Your task to perform on an android device: Open Google Image 0: 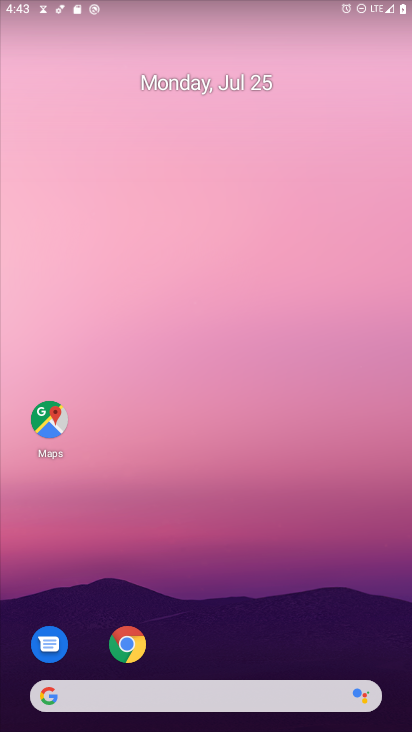
Step 0: press home button
Your task to perform on an android device: Open Google Image 1: 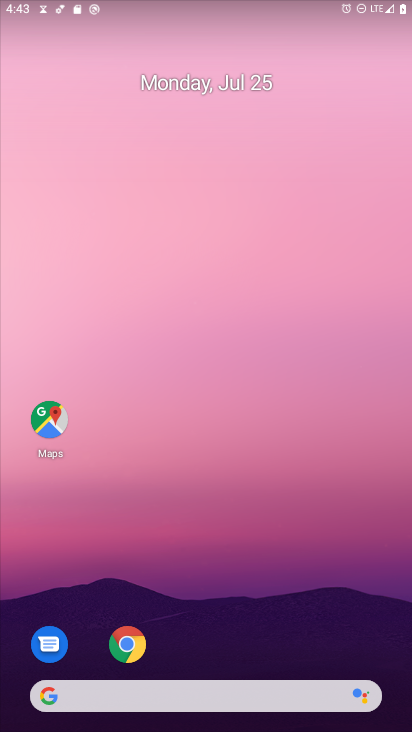
Step 1: drag from (297, 616) to (244, 109)
Your task to perform on an android device: Open Google Image 2: 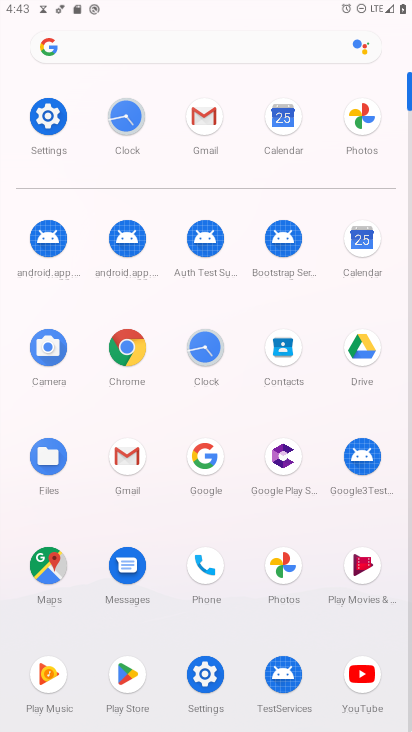
Step 2: click (209, 450)
Your task to perform on an android device: Open Google Image 3: 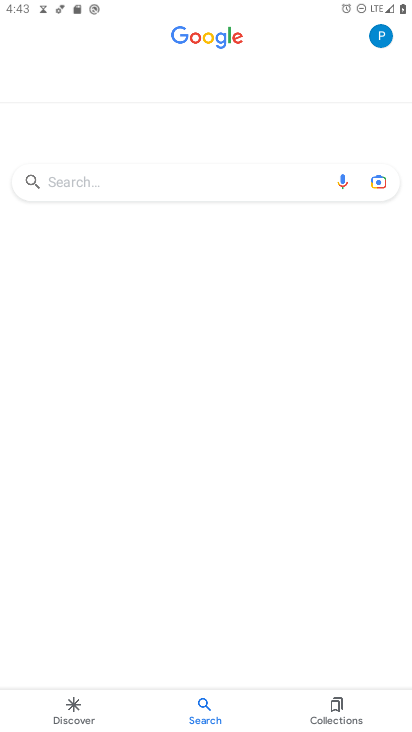
Step 3: click (186, 34)
Your task to perform on an android device: Open Google Image 4: 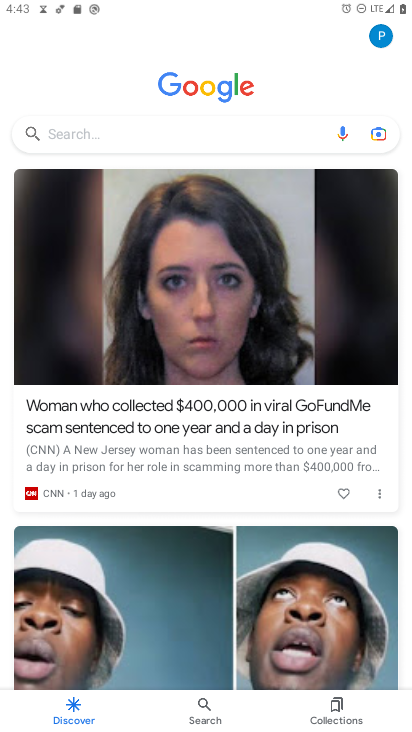
Step 4: task complete